Your task to perform on an android device: open chrome privacy settings Image 0: 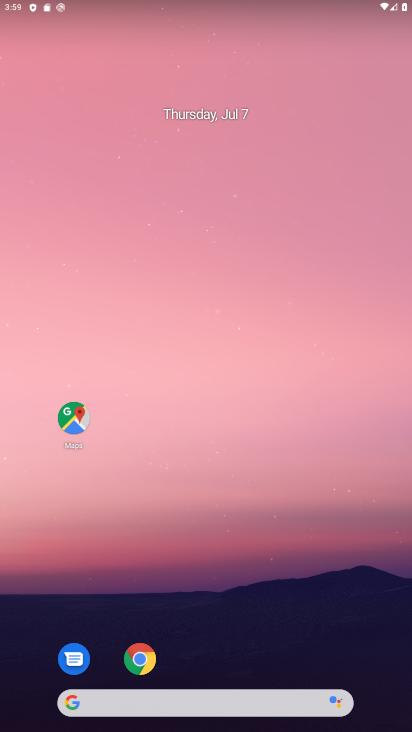
Step 0: click (137, 655)
Your task to perform on an android device: open chrome privacy settings Image 1: 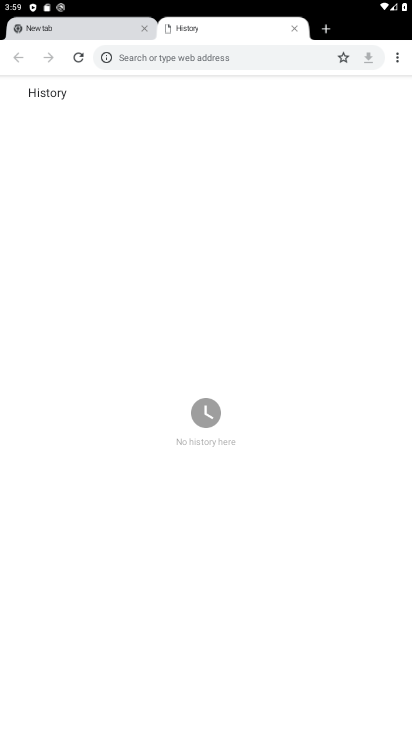
Step 1: click (398, 59)
Your task to perform on an android device: open chrome privacy settings Image 2: 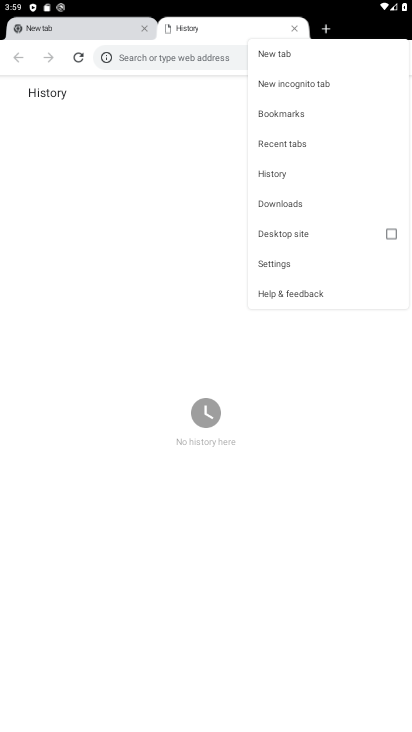
Step 2: click (275, 266)
Your task to perform on an android device: open chrome privacy settings Image 3: 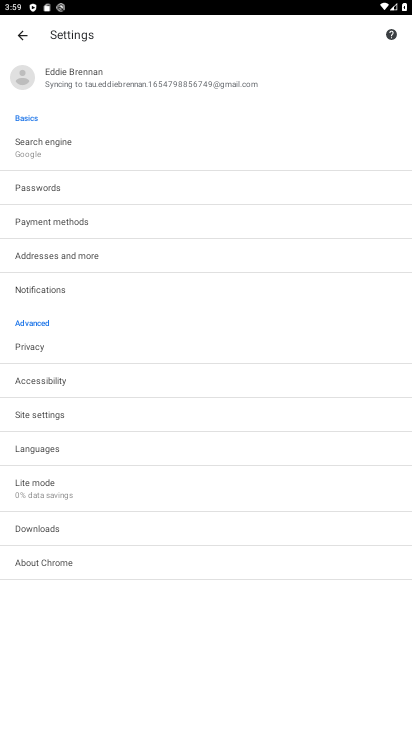
Step 3: click (28, 346)
Your task to perform on an android device: open chrome privacy settings Image 4: 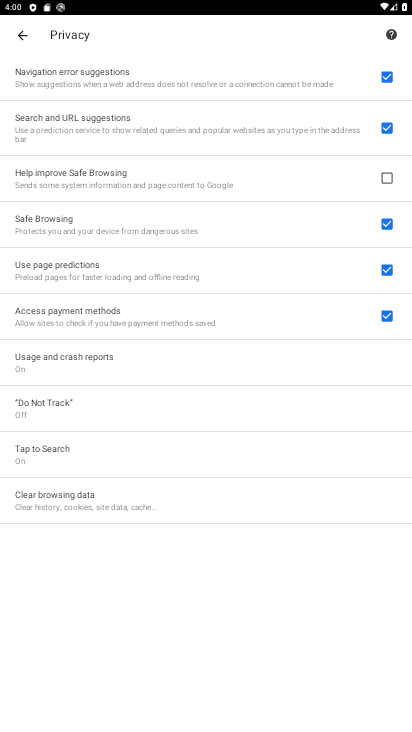
Step 4: task complete